Your task to perform on an android device: Open my contact list Image 0: 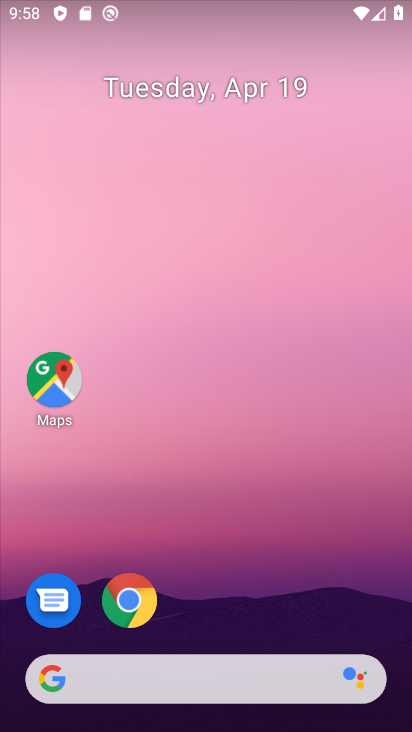
Step 0: drag from (213, 631) to (396, 229)
Your task to perform on an android device: Open my contact list Image 1: 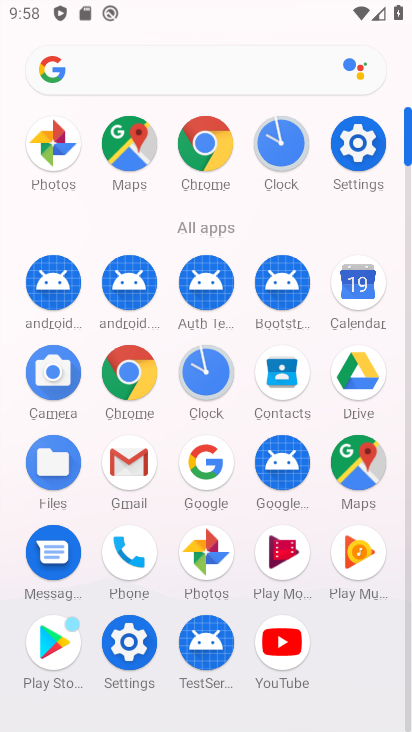
Step 1: click (303, 392)
Your task to perform on an android device: Open my contact list Image 2: 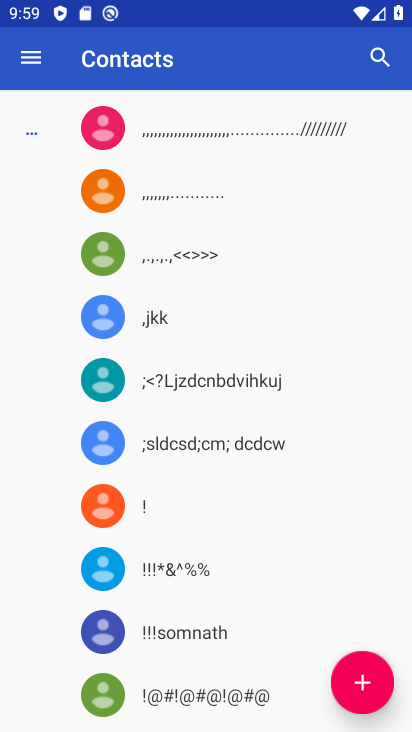
Step 2: task complete